Your task to perform on an android device: Open battery settings Image 0: 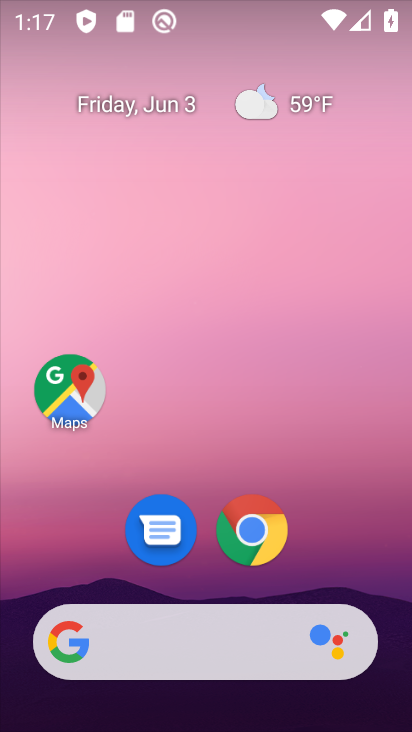
Step 0: drag from (318, 510) to (315, 2)
Your task to perform on an android device: Open battery settings Image 1: 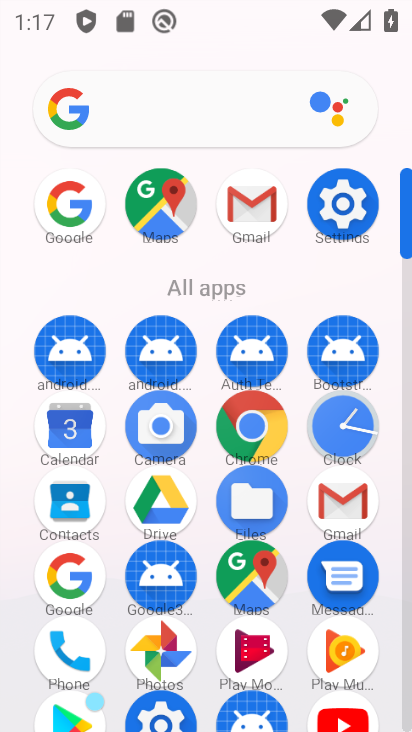
Step 1: click (351, 209)
Your task to perform on an android device: Open battery settings Image 2: 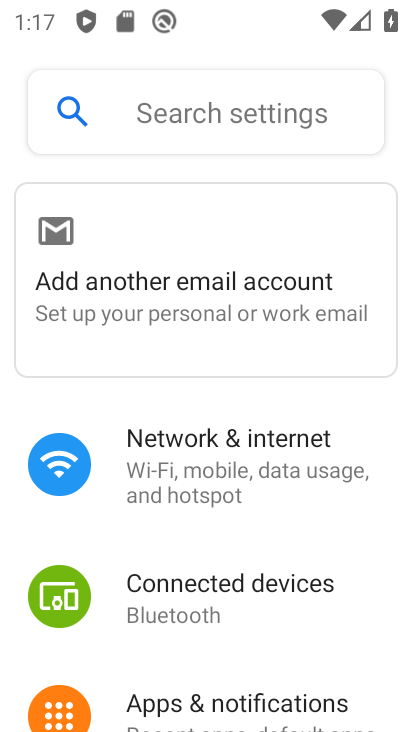
Step 2: drag from (197, 603) to (187, 203)
Your task to perform on an android device: Open battery settings Image 3: 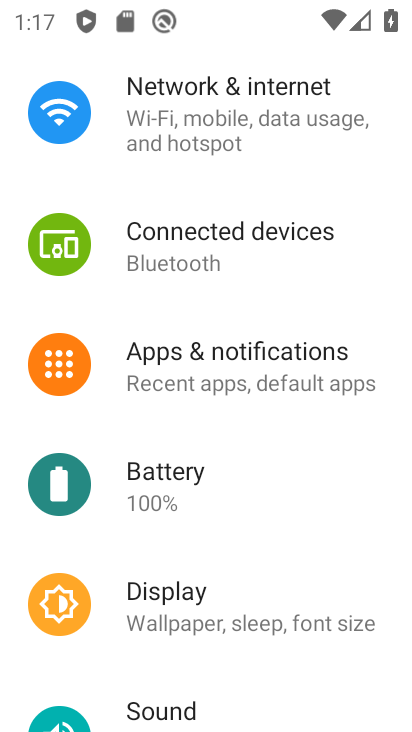
Step 3: click (163, 469)
Your task to perform on an android device: Open battery settings Image 4: 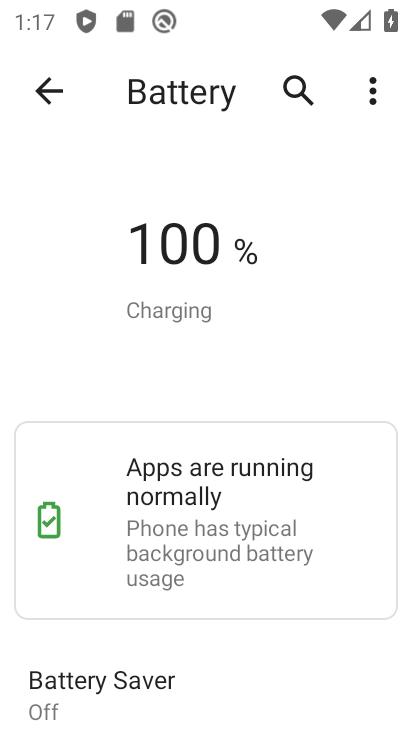
Step 4: task complete